Your task to perform on an android device: Open my contact list Image 0: 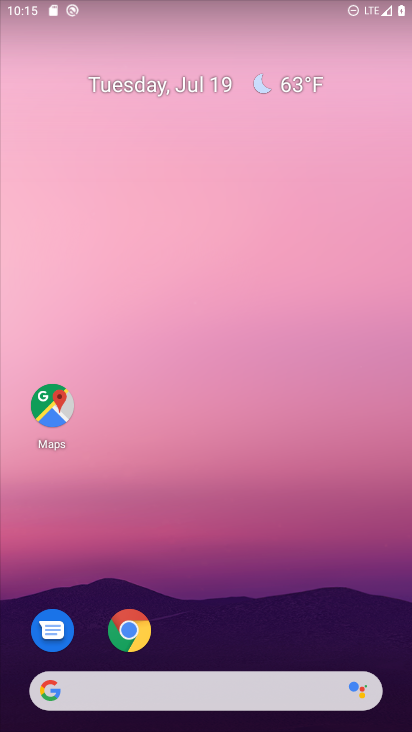
Step 0: drag from (190, 694) to (171, 180)
Your task to perform on an android device: Open my contact list Image 1: 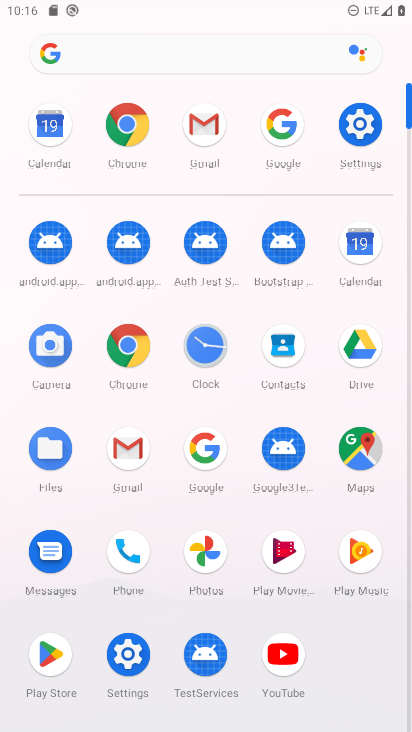
Step 1: click (282, 345)
Your task to perform on an android device: Open my contact list Image 2: 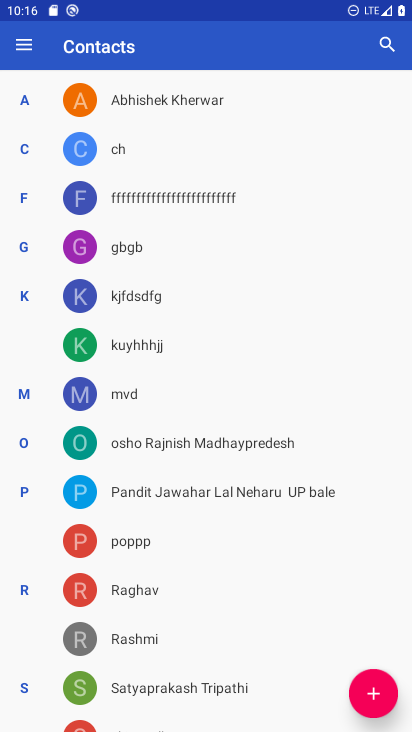
Step 2: task complete